Your task to perform on an android device: snooze an email in the gmail app Image 0: 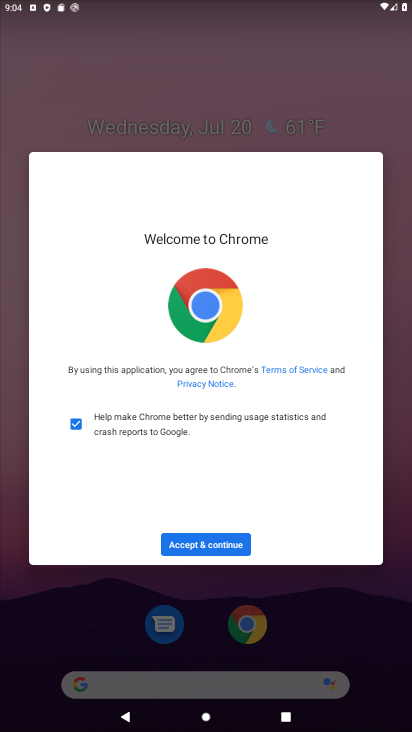
Step 0: press home button
Your task to perform on an android device: snooze an email in the gmail app Image 1: 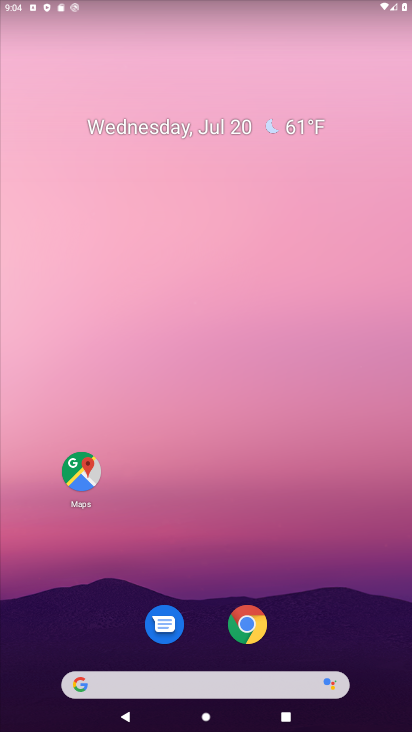
Step 1: drag from (197, 614) to (224, 152)
Your task to perform on an android device: snooze an email in the gmail app Image 2: 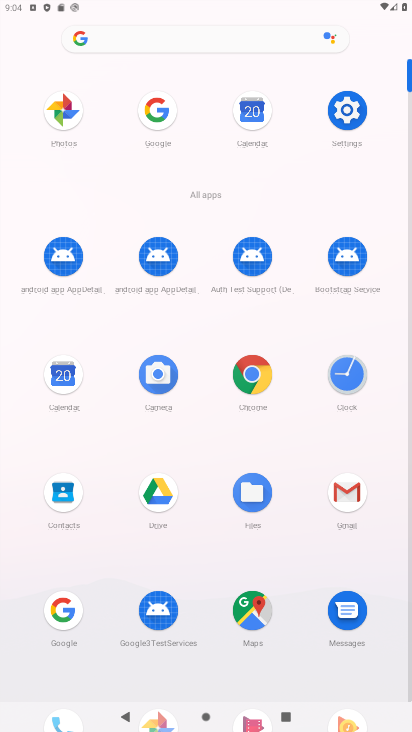
Step 2: click (334, 485)
Your task to perform on an android device: snooze an email in the gmail app Image 3: 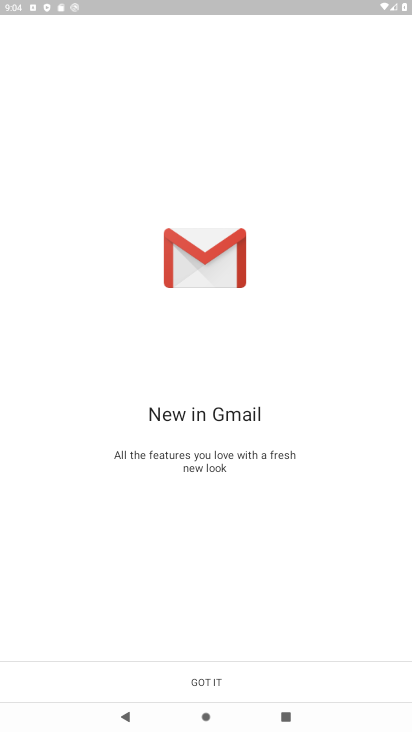
Step 3: click (281, 692)
Your task to perform on an android device: snooze an email in the gmail app Image 4: 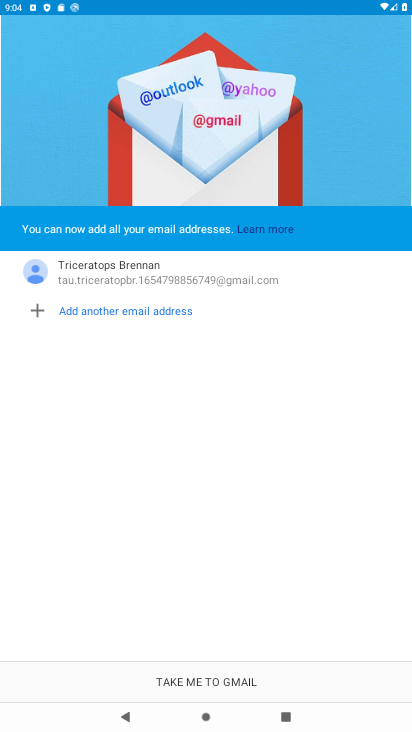
Step 4: click (281, 679)
Your task to perform on an android device: snooze an email in the gmail app Image 5: 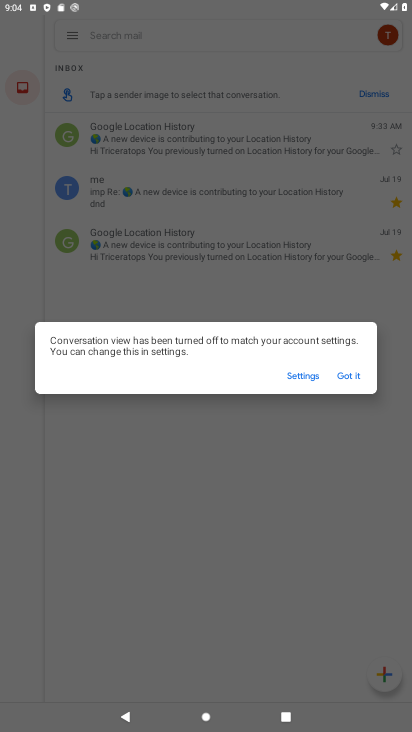
Step 5: click (364, 379)
Your task to perform on an android device: snooze an email in the gmail app Image 6: 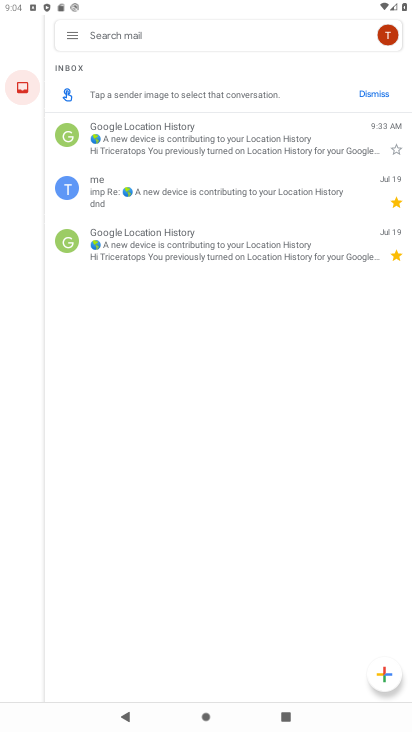
Step 6: click (140, 201)
Your task to perform on an android device: snooze an email in the gmail app Image 7: 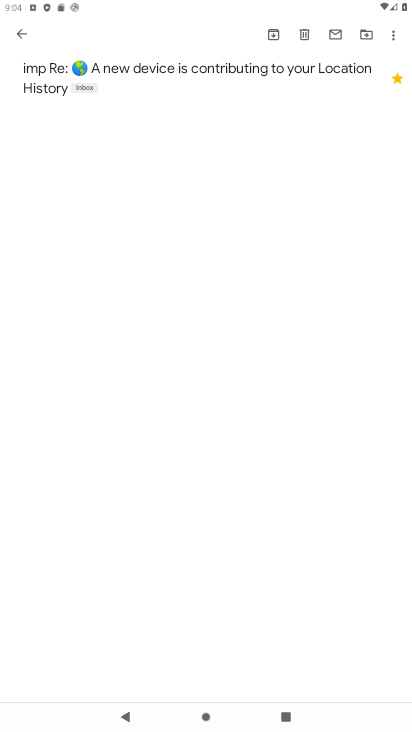
Step 7: click (393, 35)
Your task to perform on an android device: snooze an email in the gmail app Image 8: 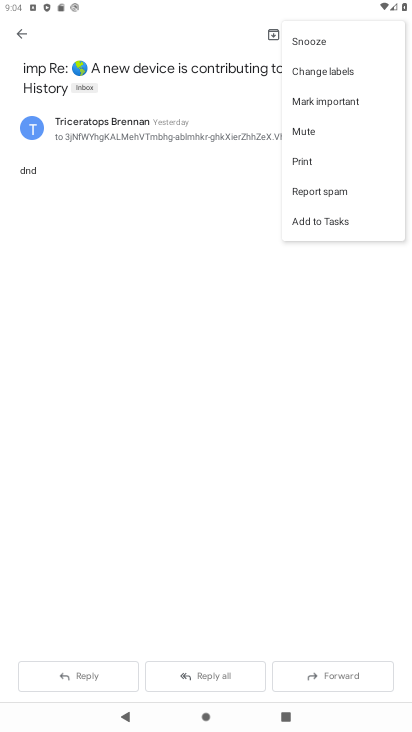
Step 8: click (341, 42)
Your task to perform on an android device: snooze an email in the gmail app Image 9: 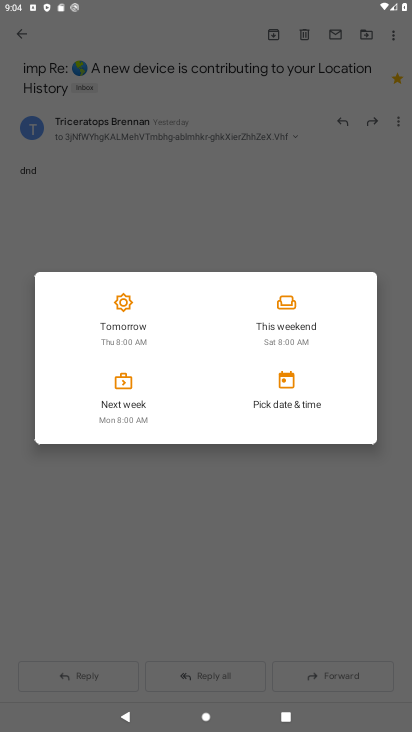
Step 9: click (110, 328)
Your task to perform on an android device: snooze an email in the gmail app Image 10: 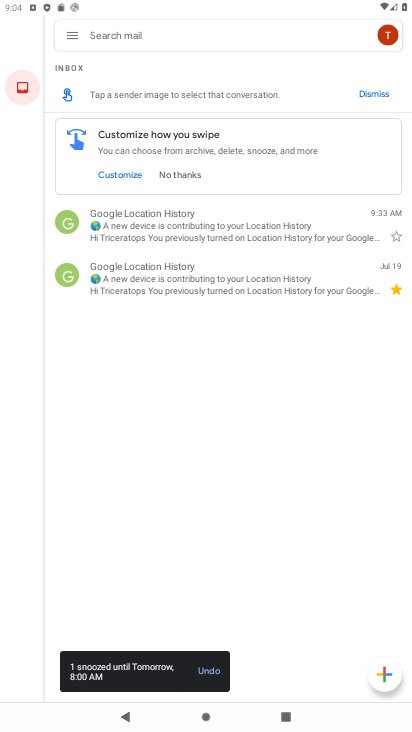
Step 10: task complete